Your task to perform on an android device: allow cookies in the chrome app Image 0: 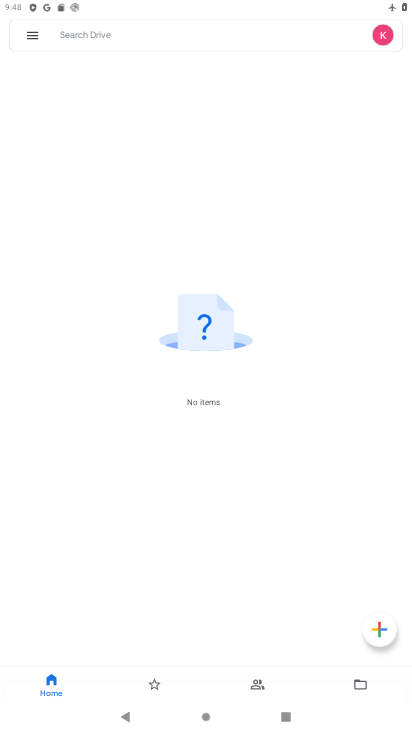
Step 0: press home button
Your task to perform on an android device: allow cookies in the chrome app Image 1: 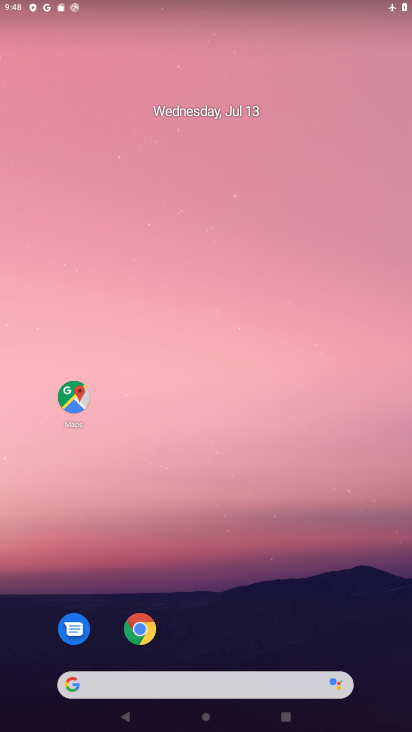
Step 1: drag from (254, 613) to (194, 162)
Your task to perform on an android device: allow cookies in the chrome app Image 2: 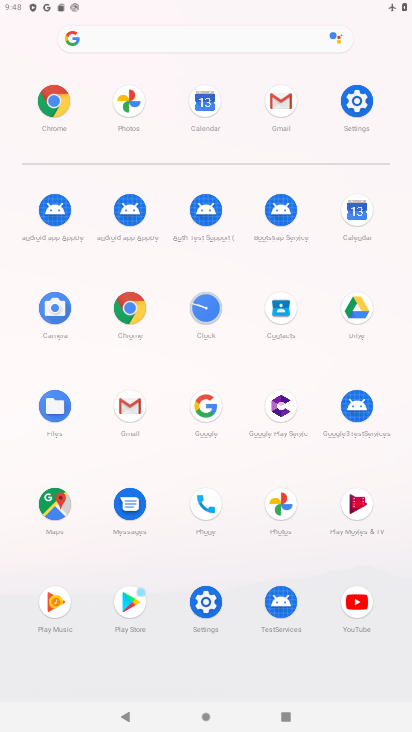
Step 2: click (56, 131)
Your task to perform on an android device: allow cookies in the chrome app Image 3: 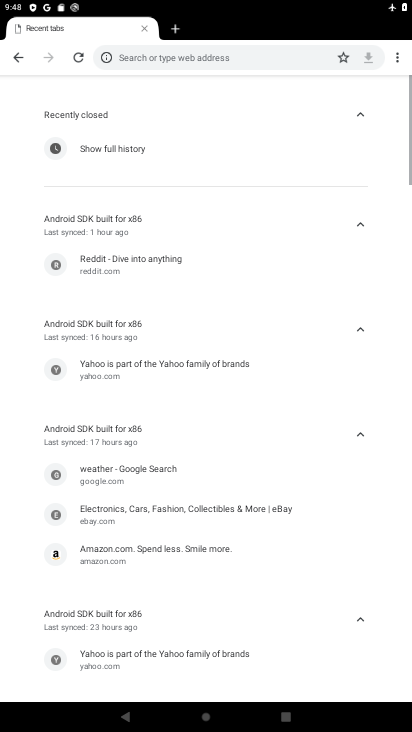
Step 3: click (387, 54)
Your task to perform on an android device: allow cookies in the chrome app Image 4: 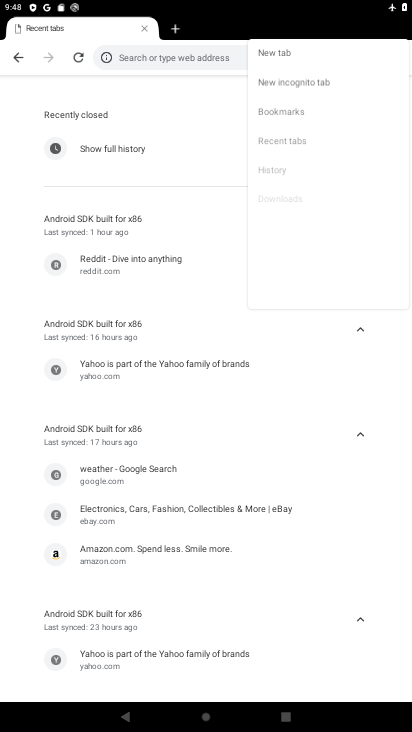
Step 4: click (397, 55)
Your task to perform on an android device: allow cookies in the chrome app Image 5: 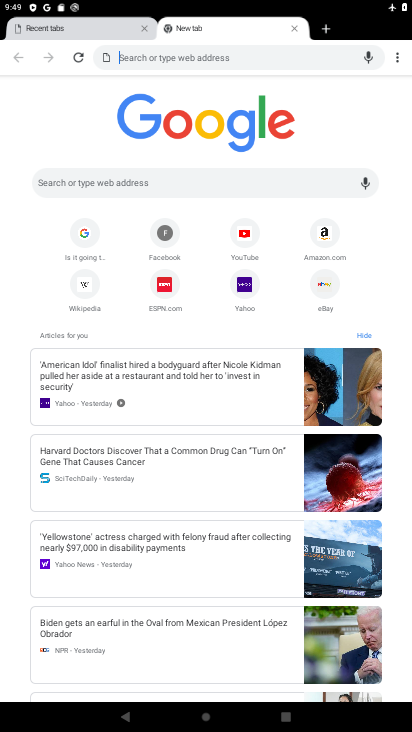
Step 5: click (391, 57)
Your task to perform on an android device: allow cookies in the chrome app Image 6: 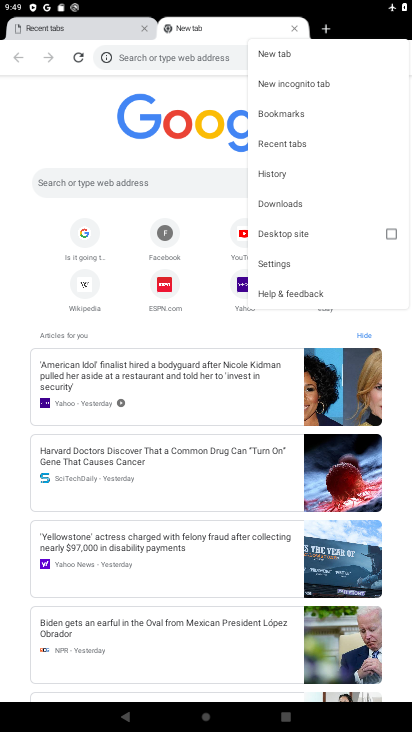
Step 6: click (290, 258)
Your task to perform on an android device: allow cookies in the chrome app Image 7: 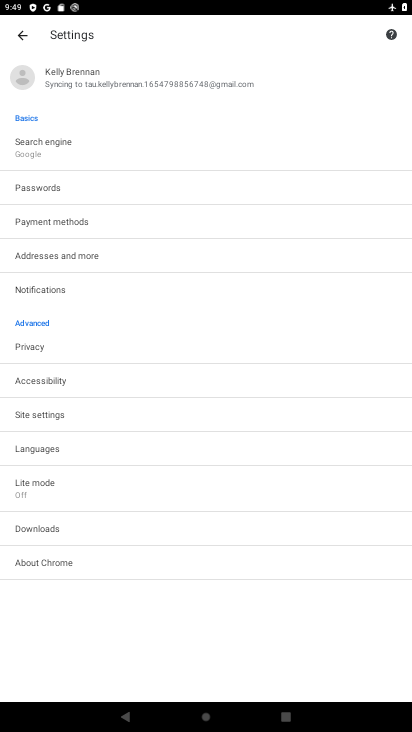
Step 7: task complete